Your task to perform on an android device: turn on the 12-hour format for clock Image 0: 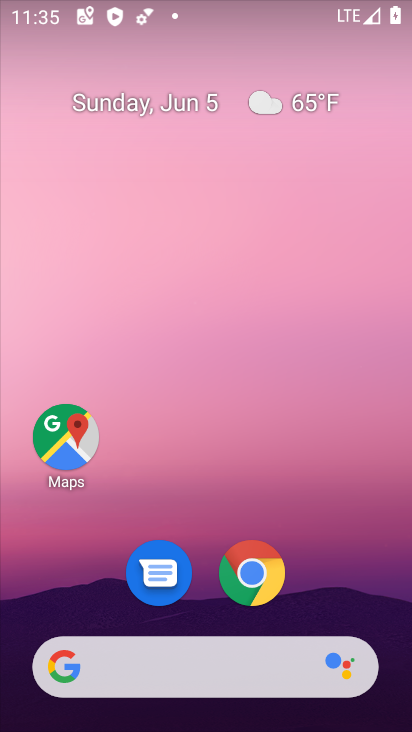
Step 0: drag from (204, 516) to (279, 60)
Your task to perform on an android device: turn on the 12-hour format for clock Image 1: 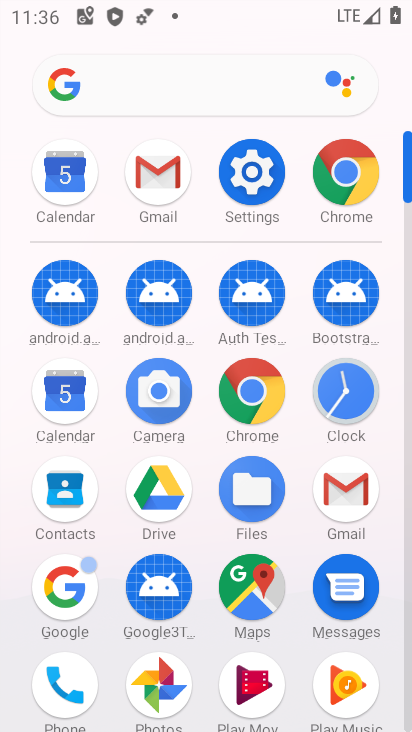
Step 1: drag from (200, 181) to (195, 88)
Your task to perform on an android device: turn on the 12-hour format for clock Image 2: 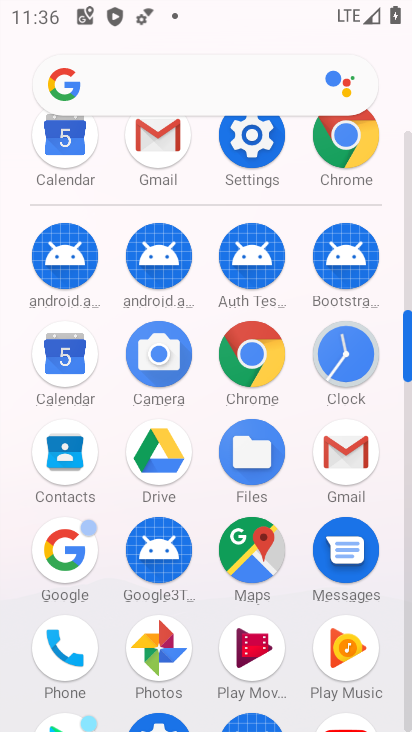
Step 2: click (358, 357)
Your task to perform on an android device: turn on the 12-hour format for clock Image 3: 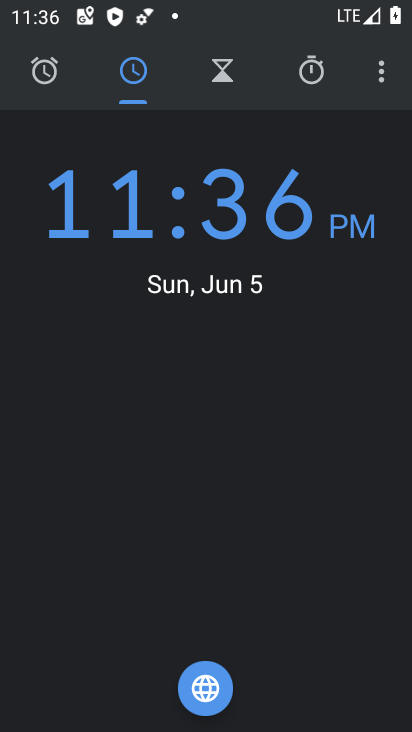
Step 3: click (379, 87)
Your task to perform on an android device: turn on the 12-hour format for clock Image 4: 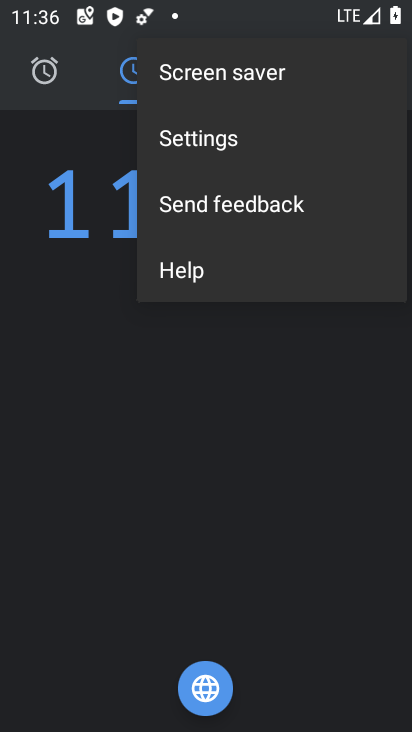
Step 4: click (236, 156)
Your task to perform on an android device: turn on the 12-hour format for clock Image 5: 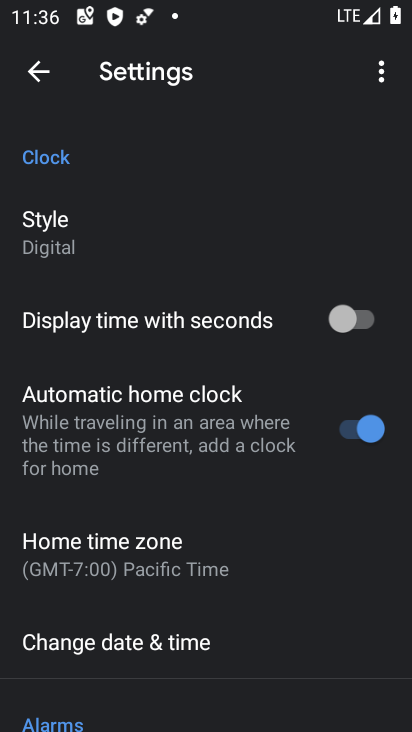
Step 5: click (194, 643)
Your task to perform on an android device: turn on the 12-hour format for clock Image 6: 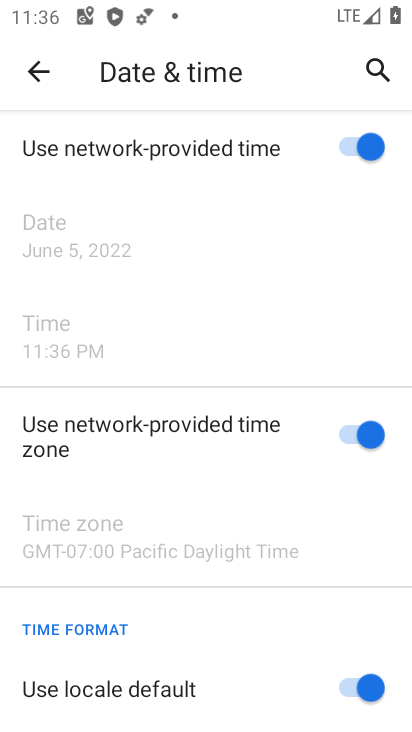
Step 6: task complete